Your task to perform on an android device: turn off sleep mode Image 0: 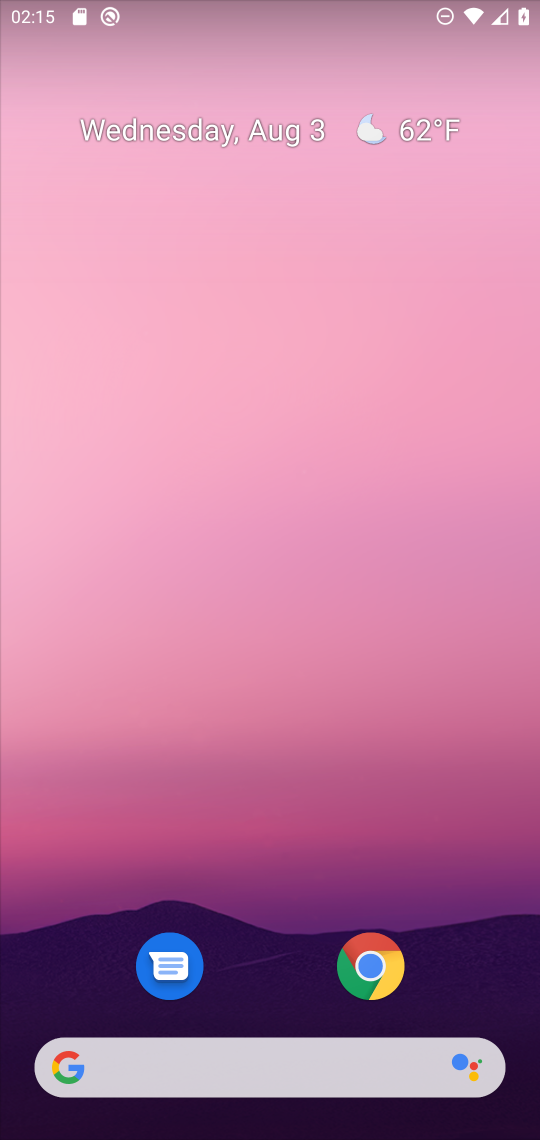
Step 0: drag from (269, 843) to (316, 246)
Your task to perform on an android device: turn off sleep mode Image 1: 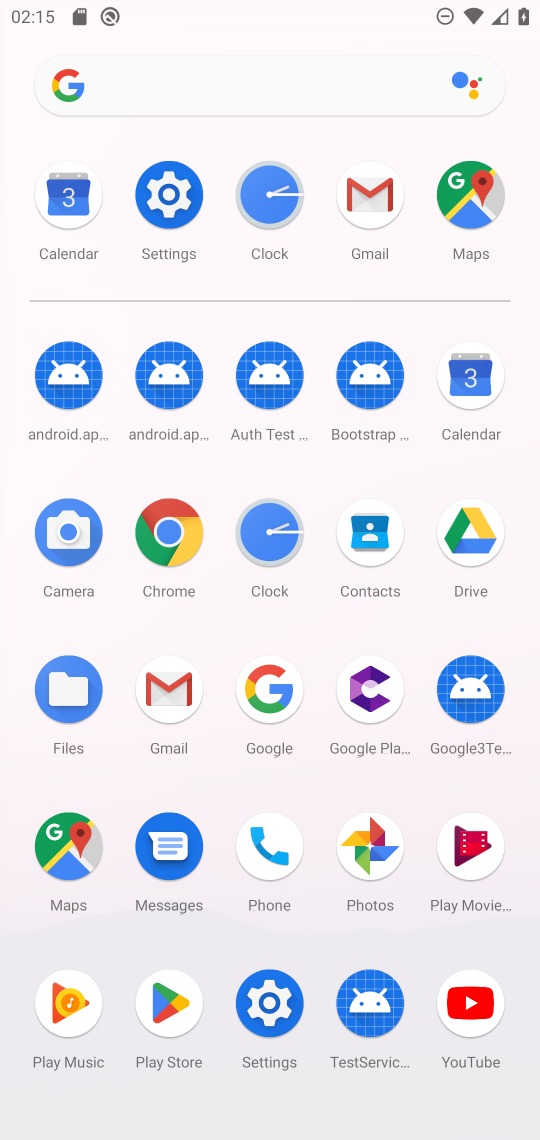
Step 1: click (149, 189)
Your task to perform on an android device: turn off sleep mode Image 2: 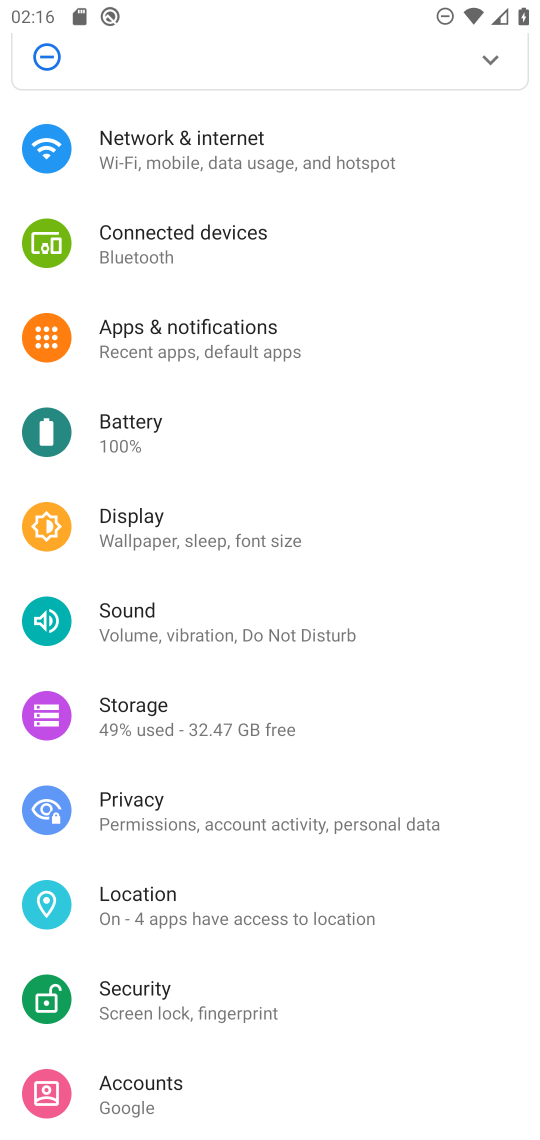
Step 2: click (187, 540)
Your task to perform on an android device: turn off sleep mode Image 3: 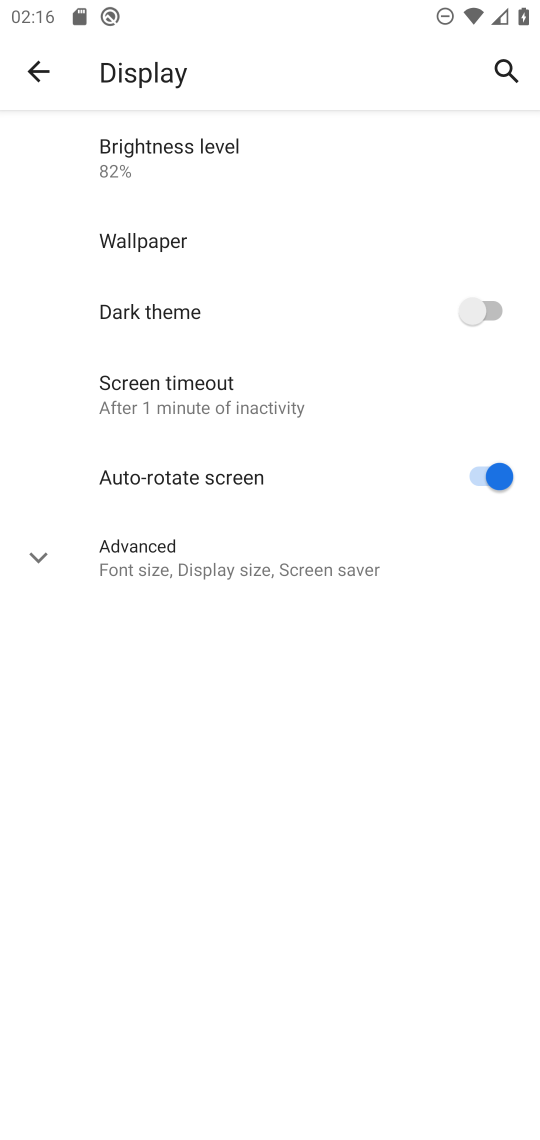
Step 3: click (234, 405)
Your task to perform on an android device: turn off sleep mode Image 4: 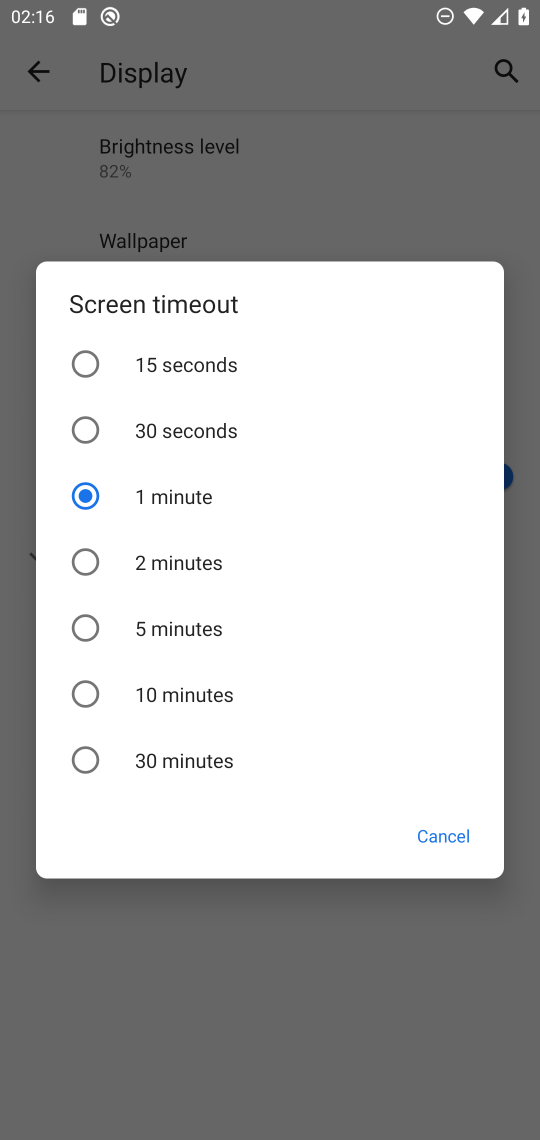
Step 4: click (186, 623)
Your task to perform on an android device: turn off sleep mode Image 5: 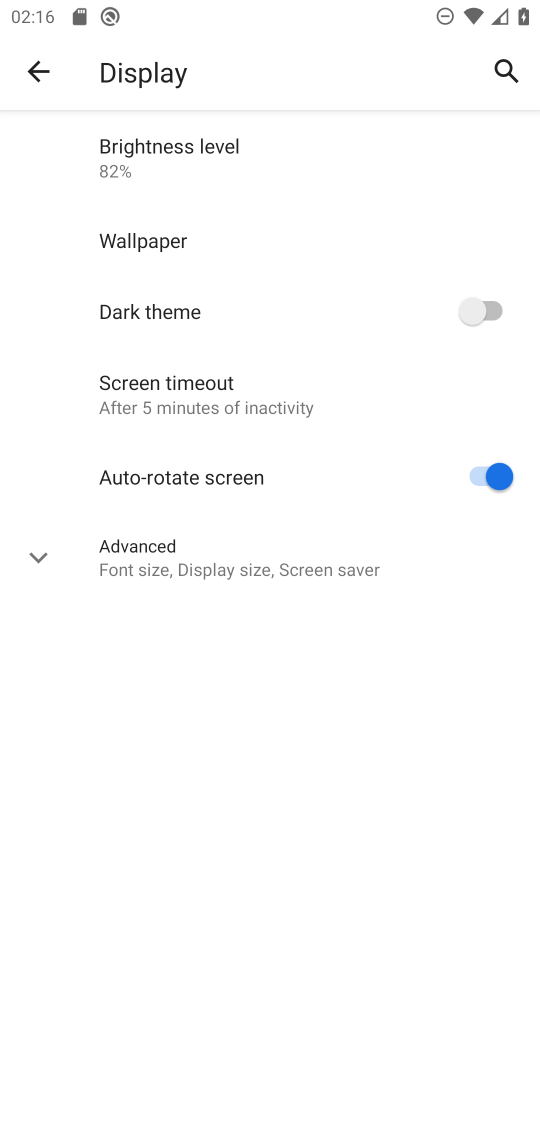
Step 5: task complete